Your task to perform on an android device: turn on wifi Image 0: 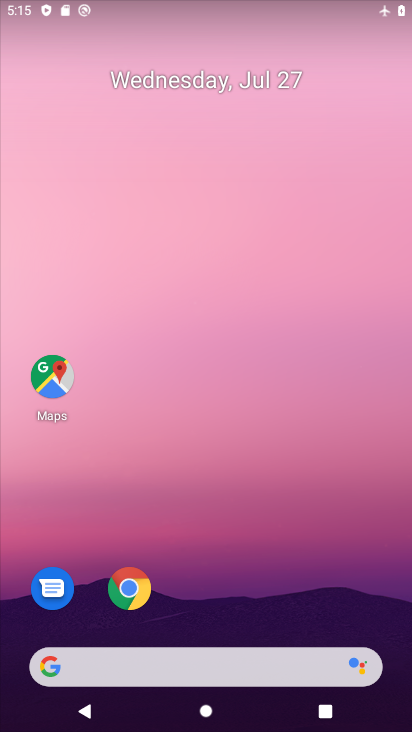
Step 0: drag from (319, 566) to (339, 1)
Your task to perform on an android device: turn on wifi Image 1: 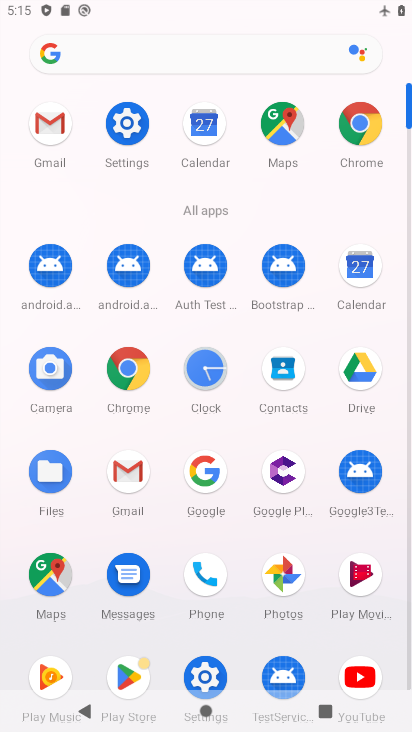
Step 1: click (127, 128)
Your task to perform on an android device: turn on wifi Image 2: 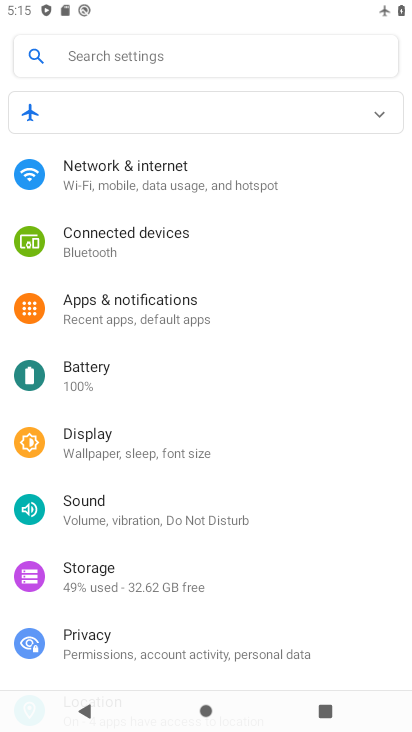
Step 2: click (184, 190)
Your task to perform on an android device: turn on wifi Image 3: 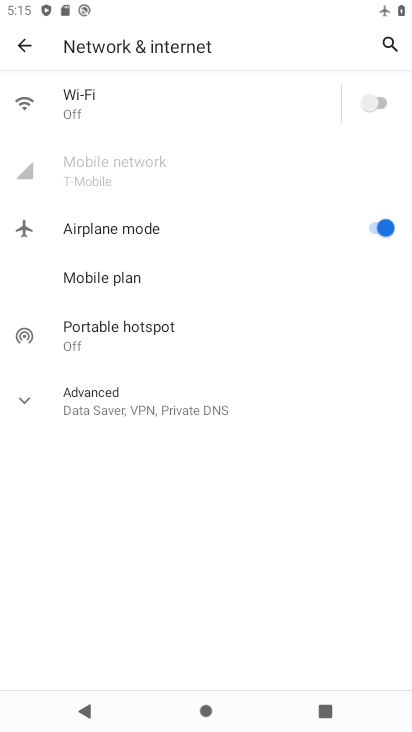
Step 3: click (388, 98)
Your task to perform on an android device: turn on wifi Image 4: 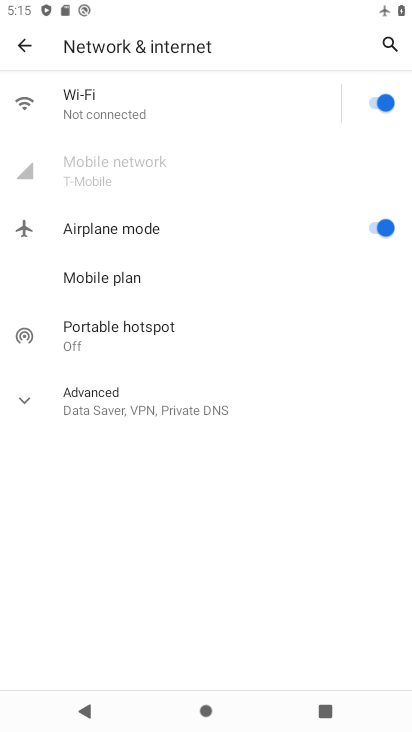
Step 4: task complete